Your task to perform on an android device: Open accessibility settings Image 0: 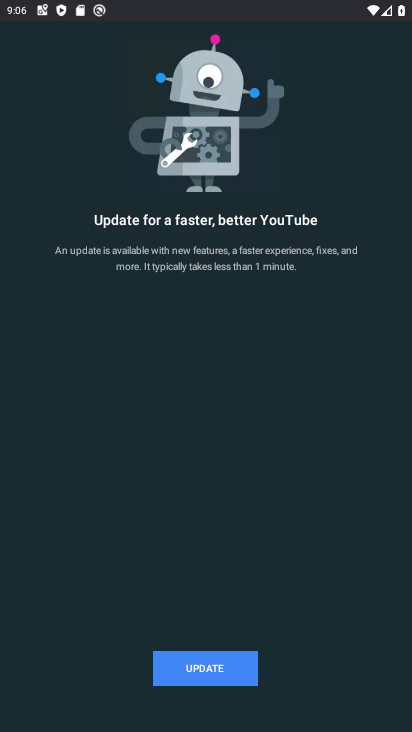
Step 0: drag from (197, 422) to (119, 59)
Your task to perform on an android device: Open accessibility settings Image 1: 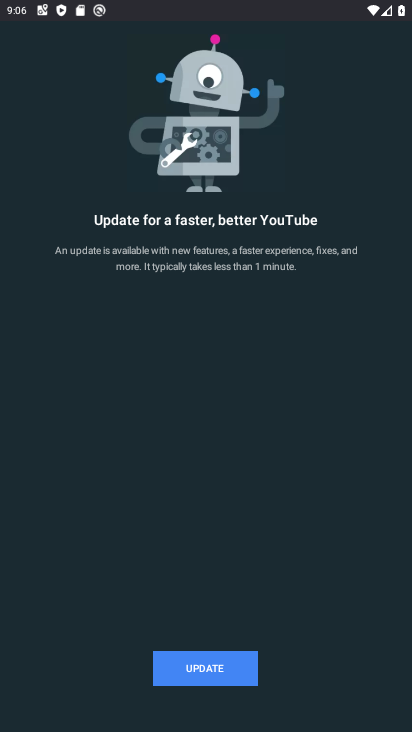
Step 1: drag from (211, 602) to (302, 182)
Your task to perform on an android device: Open accessibility settings Image 2: 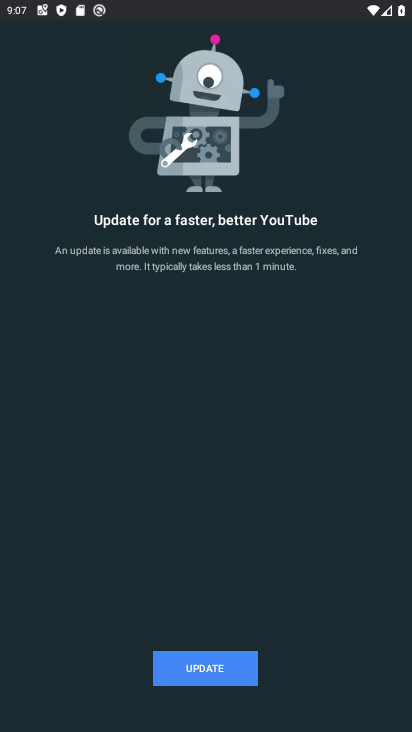
Step 2: drag from (291, 504) to (260, 108)
Your task to perform on an android device: Open accessibility settings Image 3: 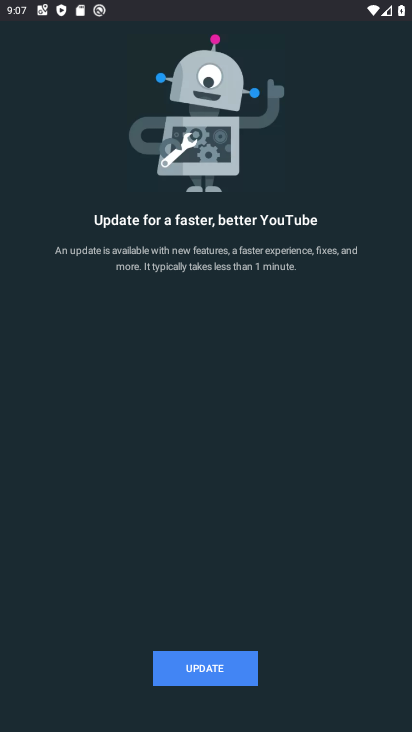
Step 3: press home button
Your task to perform on an android device: Open accessibility settings Image 4: 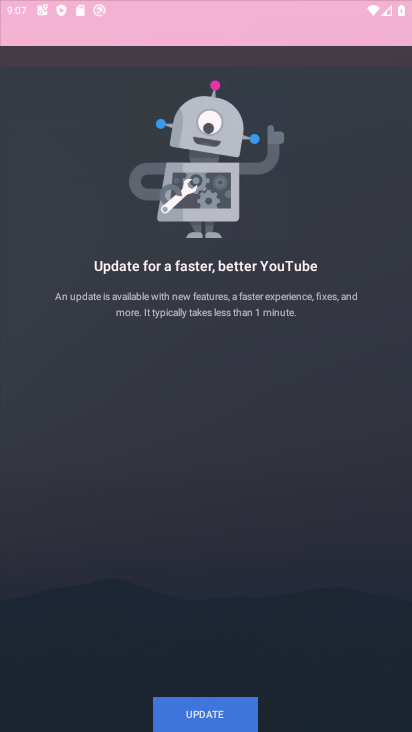
Step 4: drag from (281, 628) to (281, 195)
Your task to perform on an android device: Open accessibility settings Image 5: 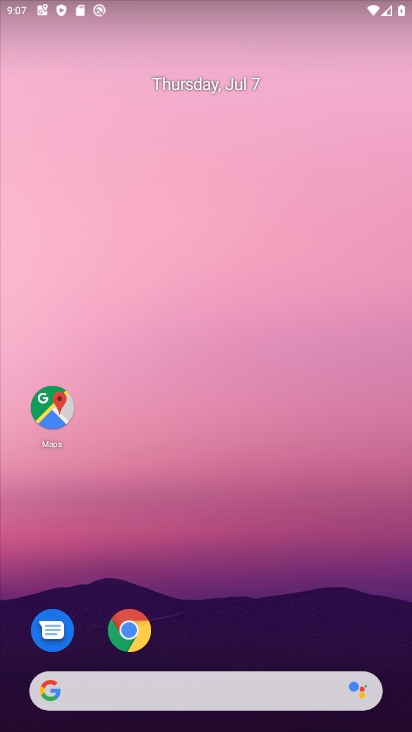
Step 5: drag from (222, 327) to (290, 35)
Your task to perform on an android device: Open accessibility settings Image 6: 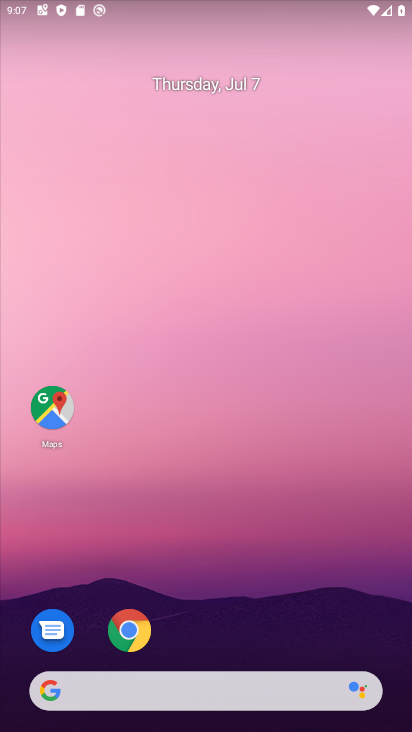
Step 6: drag from (245, 649) to (345, 3)
Your task to perform on an android device: Open accessibility settings Image 7: 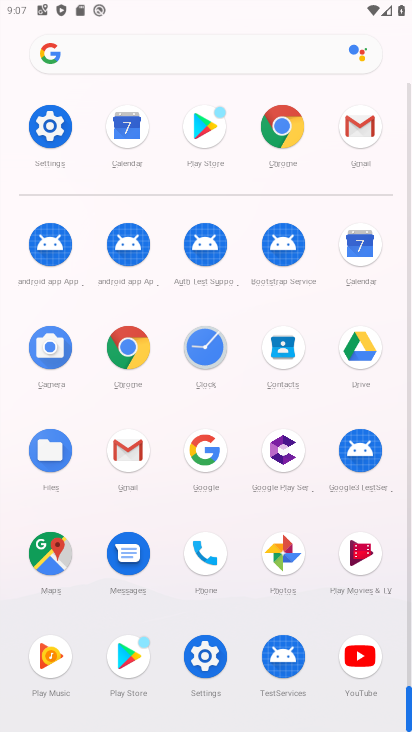
Step 7: click (40, 134)
Your task to perform on an android device: Open accessibility settings Image 8: 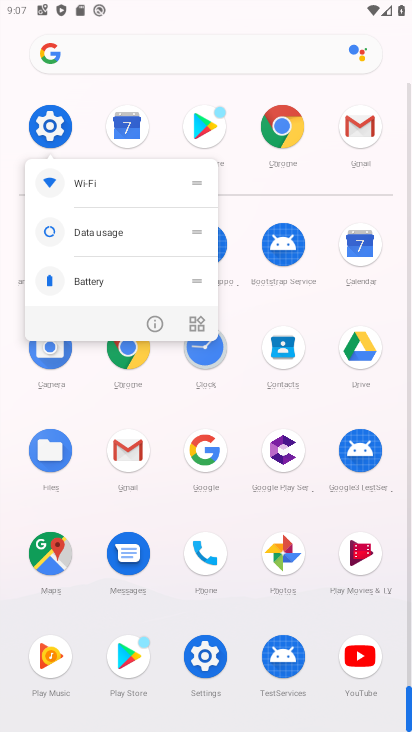
Step 8: click (155, 306)
Your task to perform on an android device: Open accessibility settings Image 9: 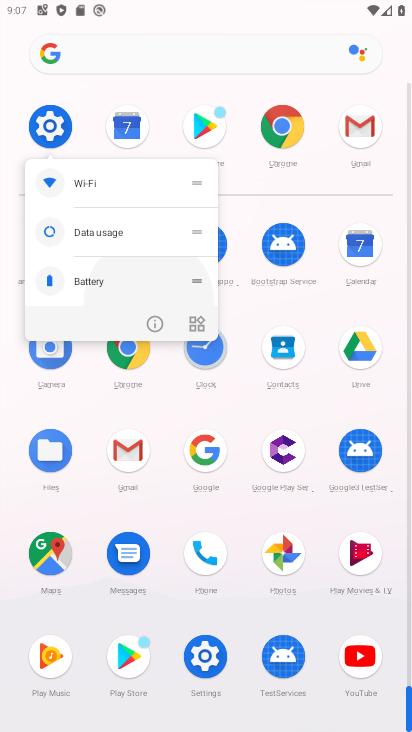
Step 9: click (153, 308)
Your task to perform on an android device: Open accessibility settings Image 10: 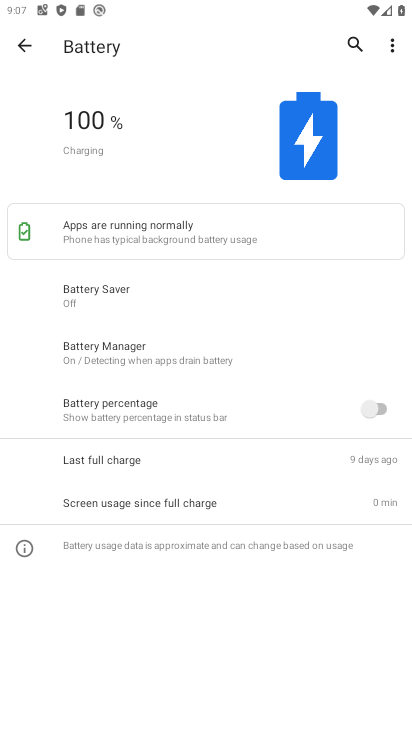
Step 10: click (33, 52)
Your task to perform on an android device: Open accessibility settings Image 11: 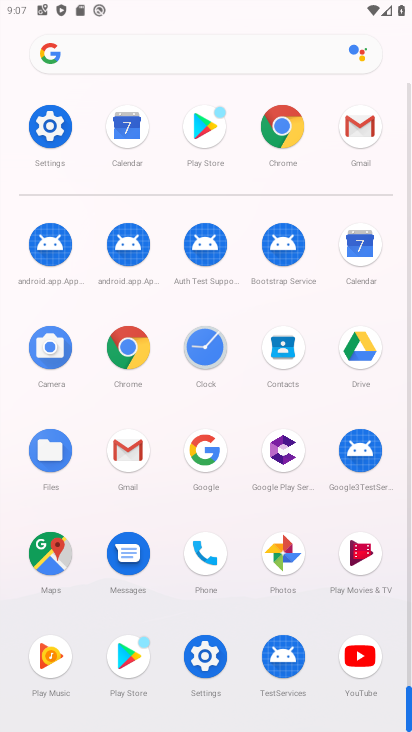
Step 11: click (46, 110)
Your task to perform on an android device: Open accessibility settings Image 12: 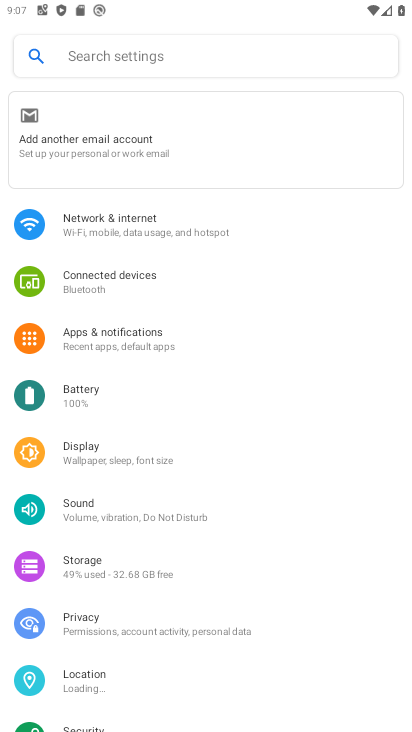
Step 12: drag from (202, 599) to (242, 3)
Your task to perform on an android device: Open accessibility settings Image 13: 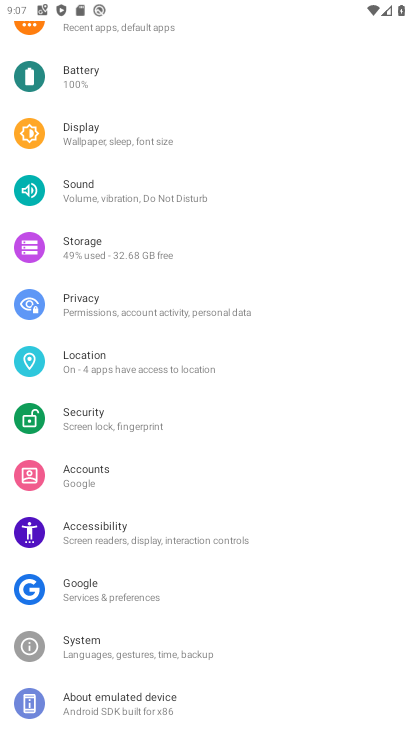
Step 13: click (138, 539)
Your task to perform on an android device: Open accessibility settings Image 14: 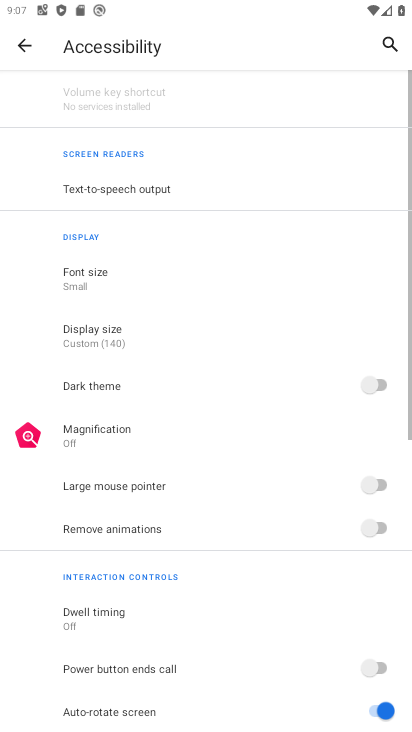
Step 14: task complete